Your task to perform on an android device: Open privacy settings Image 0: 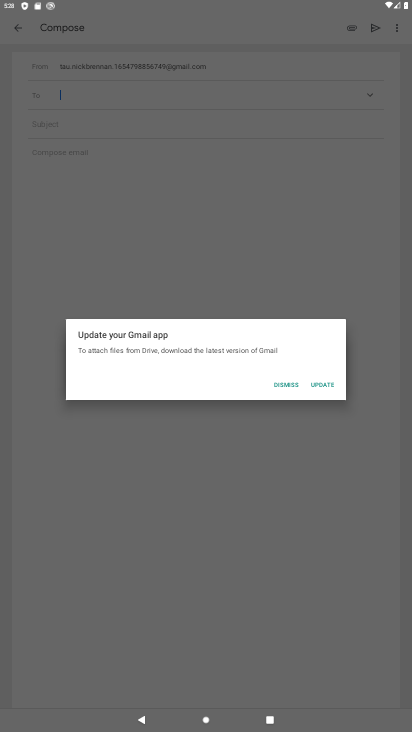
Step 0: press home button
Your task to perform on an android device: Open privacy settings Image 1: 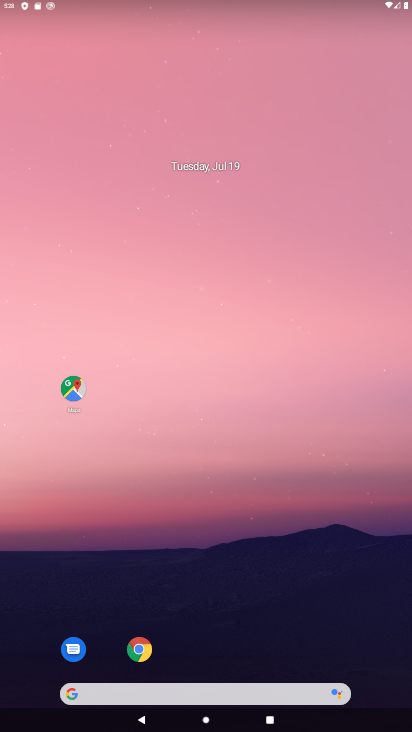
Step 1: drag from (267, 626) to (176, 136)
Your task to perform on an android device: Open privacy settings Image 2: 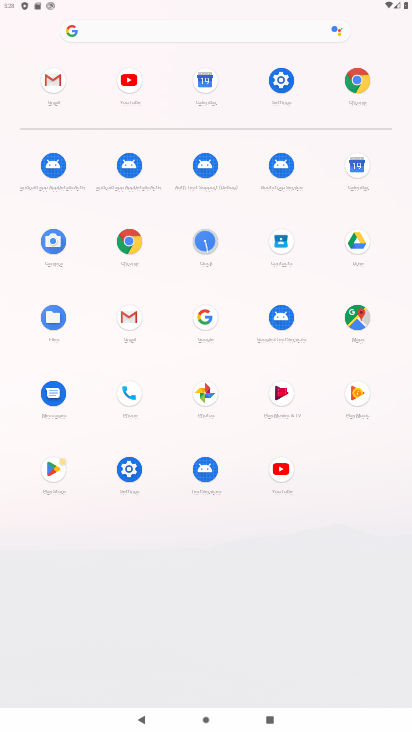
Step 2: click (277, 87)
Your task to perform on an android device: Open privacy settings Image 3: 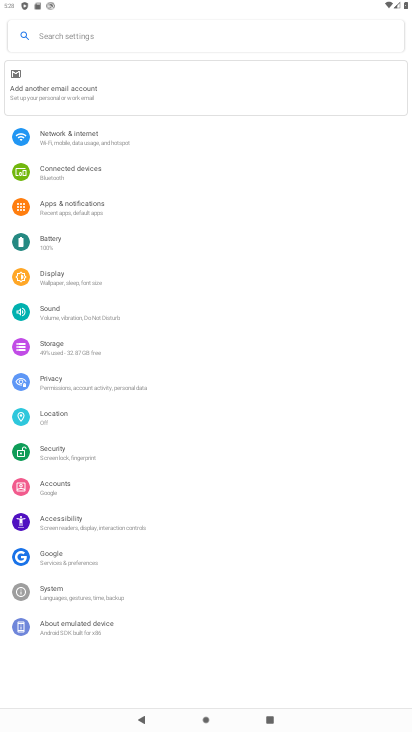
Step 3: click (50, 377)
Your task to perform on an android device: Open privacy settings Image 4: 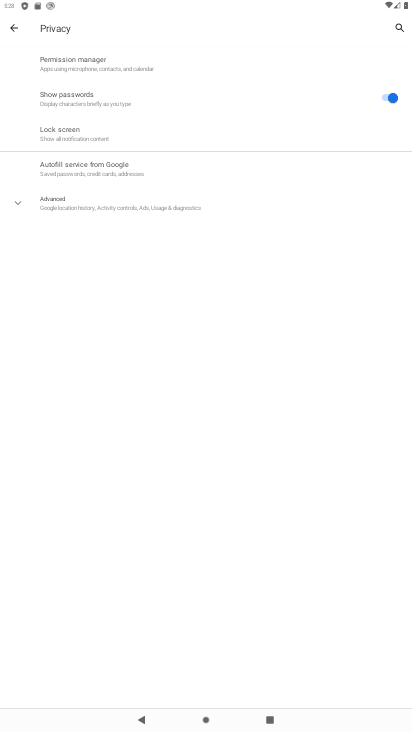
Step 4: task complete